Your task to perform on an android device: set default search engine in the chrome app Image 0: 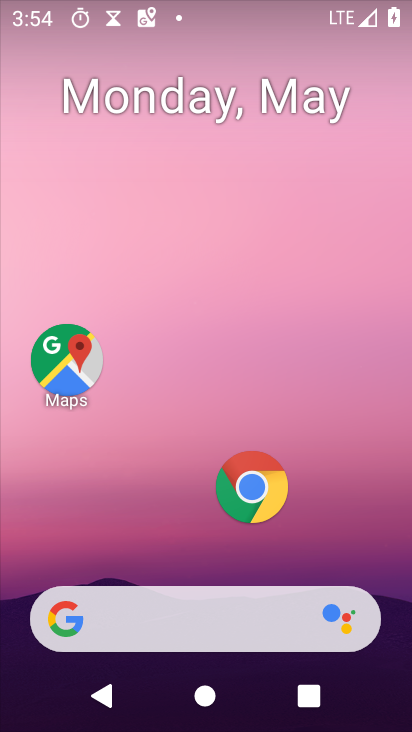
Step 0: click (245, 487)
Your task to perform on an android device: set default search engine in the chrome app Image 1: 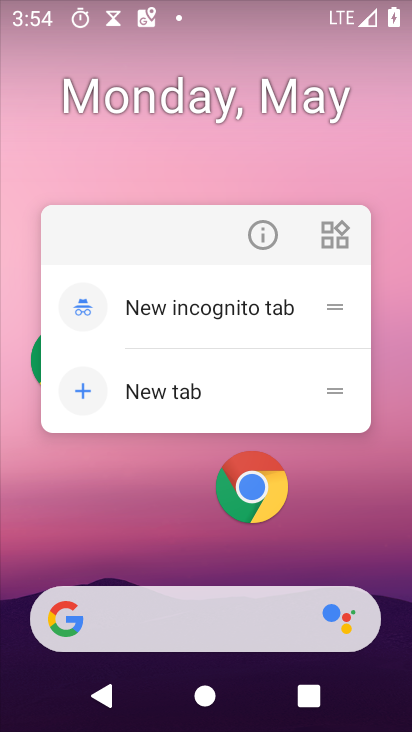
Step 1: click (250, 488)
Your task to perform on an android device: set default search engine in the chrome app Image 2: 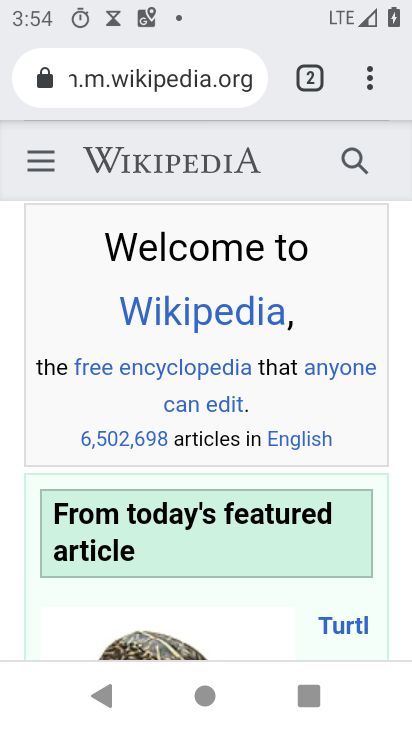
Step 2: click (358, 90)
Your task to perform on an android device: set default search engine in the chrome app Image 3: 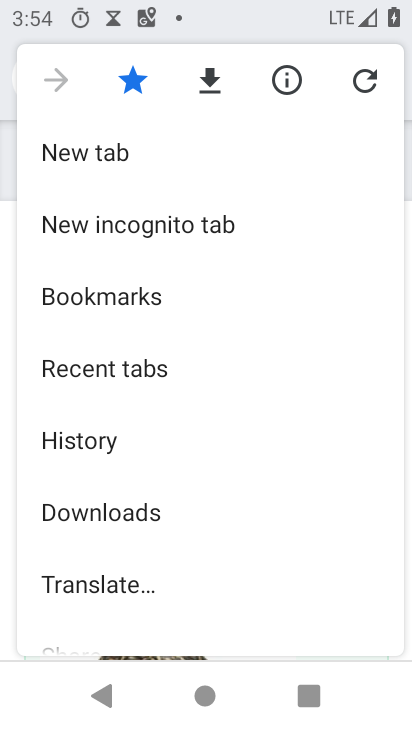
Step 3: drag from (182, 590) to (129, 197)
Your task to perform on an android device: set default search engine in the chrome app Image 4: 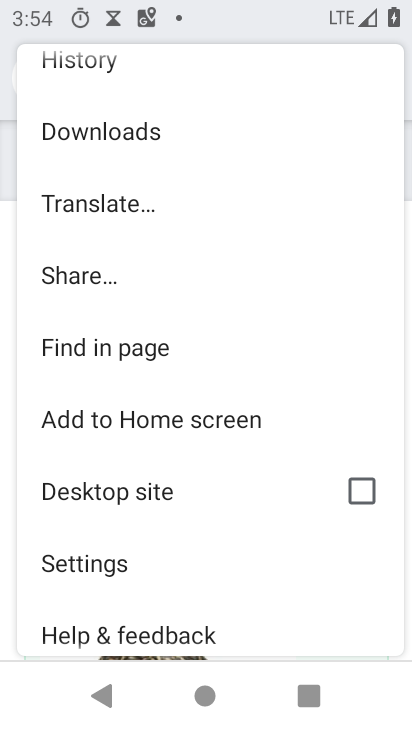
Step 4: click (91, 570)
Your task to perform on an android device: set default search engine in the chrome app Image 5: 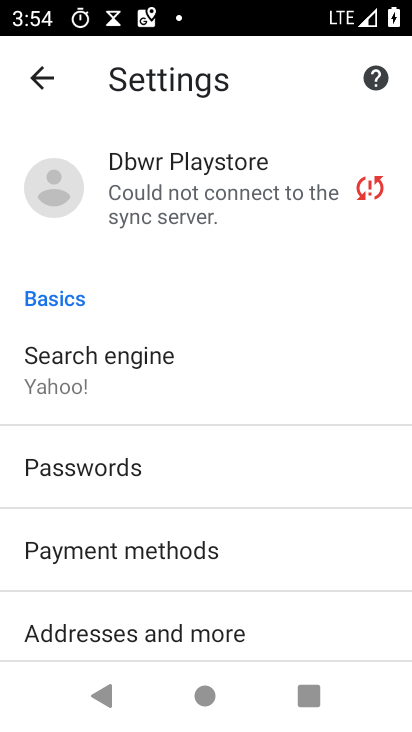
Step 5: click (171, 369)
Your task to perform on an android device: set default search engine in the chrome app Image 6: 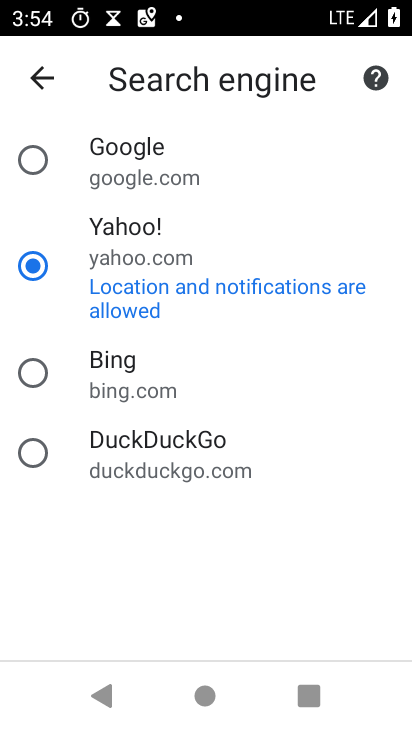
Step 6: click (133, 166)
Your task to perform on an android device: set default search engine in the chrome app Image 7: 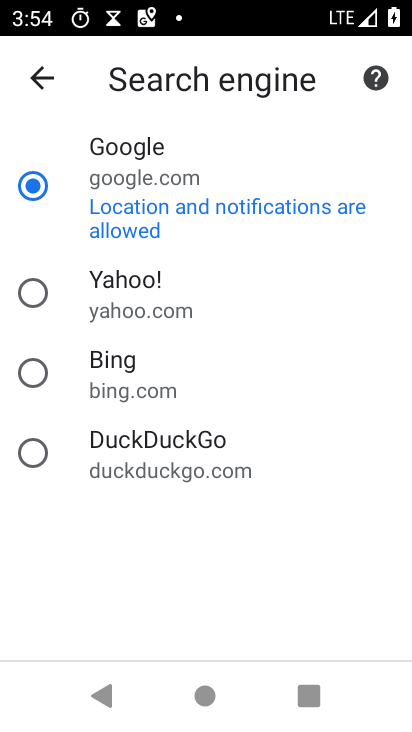
Step 7: task complete